Your task to perform on an android device: Open my contact list Image 0: 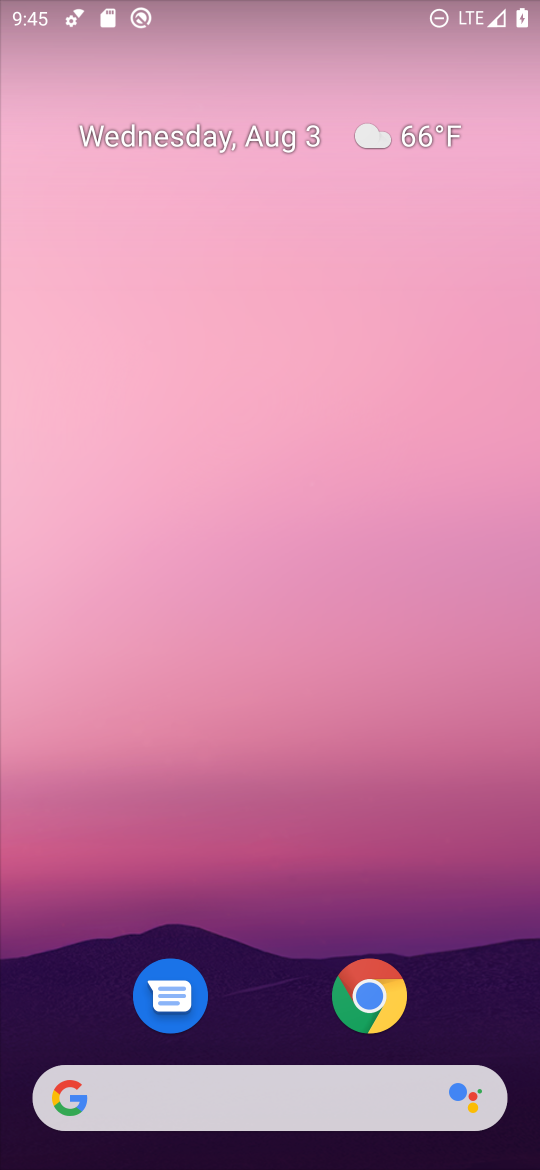
Step 0: drag from (283, 872) to (317, 0)
Your task to perform on an android device: Open my contact list Image 1: 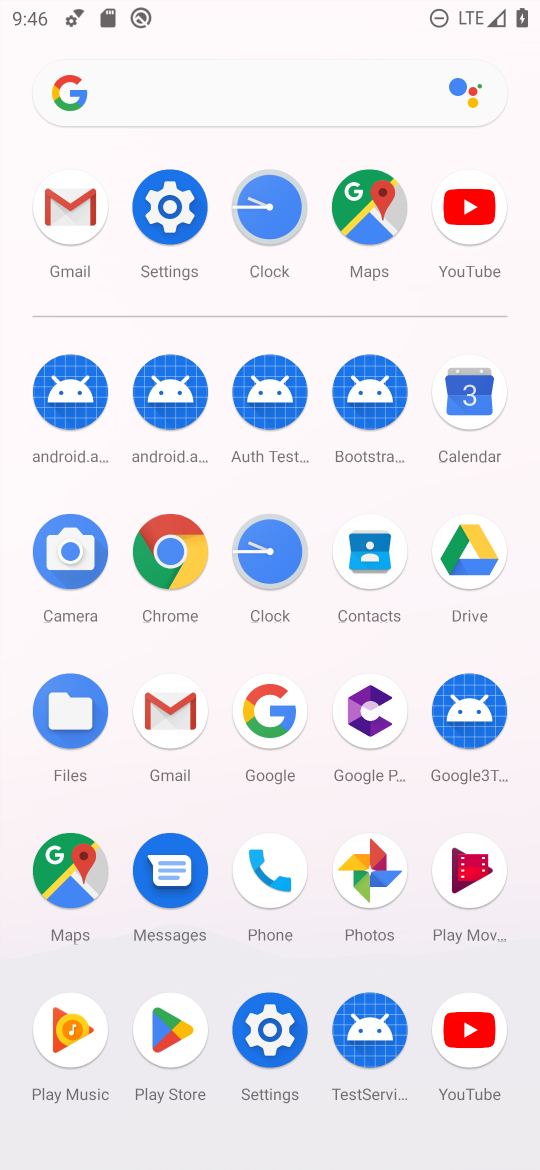
Step 1: click (370, 554)
Your task to perform on an android device: Open my contact list Image 2: 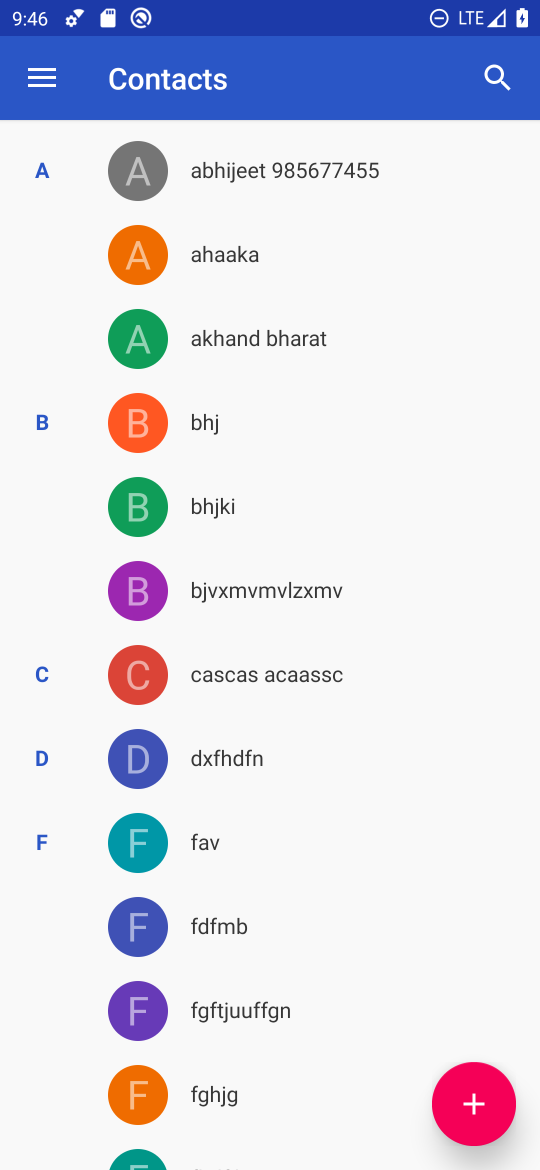
Step 2: task complete